Your task to perform on an android device: open app "Adobe Acrobat Reader" (install if not already installed) Image 0: 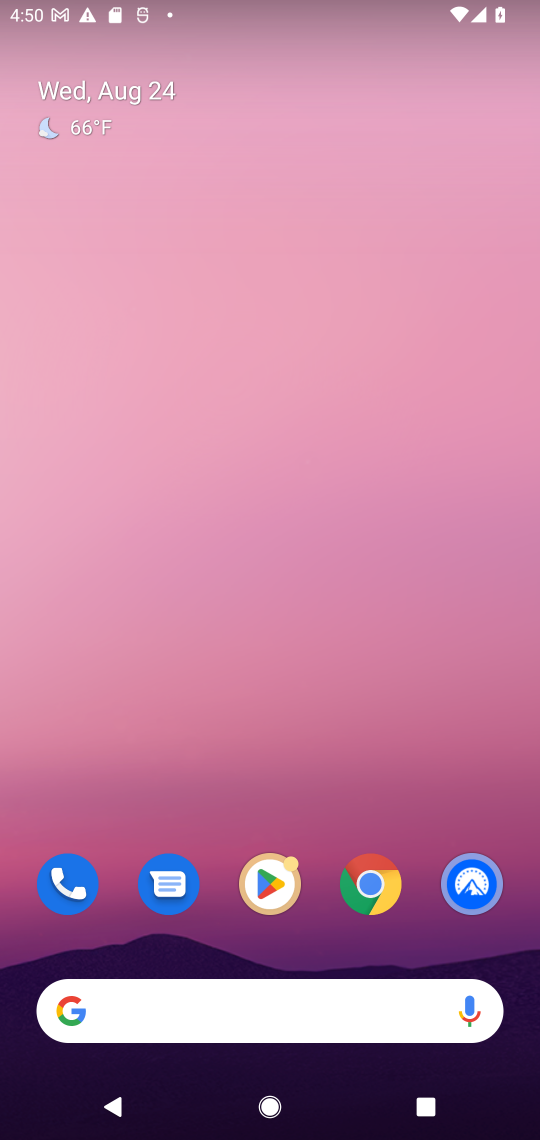
Step 0: click (273, 900)
Your task to perform on an android device: open app "Adobe Acrobat Reader" (install if not already installed) Image 1: 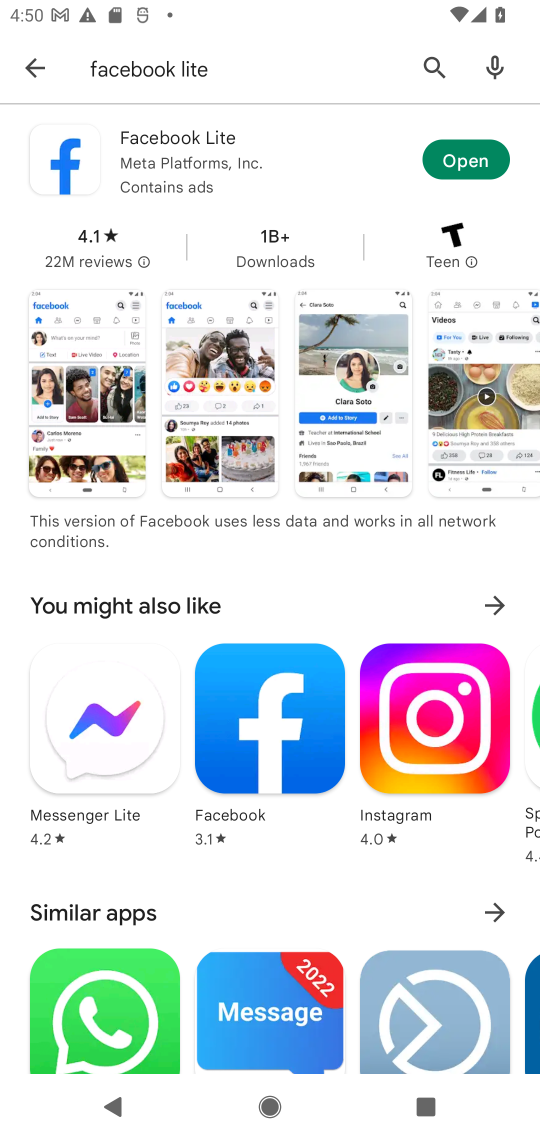
Step 1: click (22, 61)
Your task to perform on an android device: open app "Adobe Acrobat Reader" (install if not already installed) Image 2: 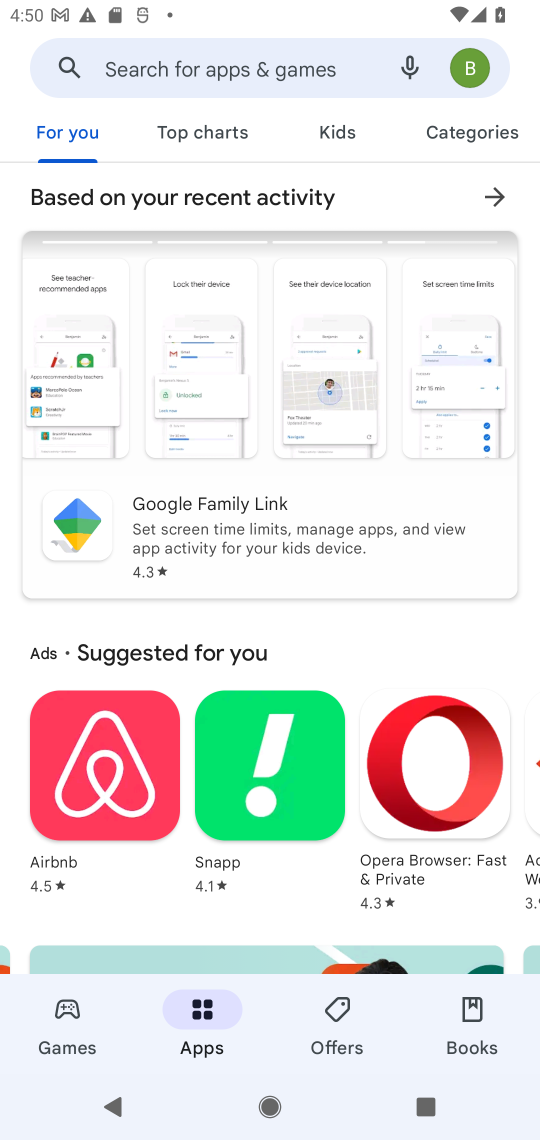
Step 2: click (181, 69)
Your task to perform on an android device: open app "Adobe Acrobat Reader" (install if not already installed) Image 3: 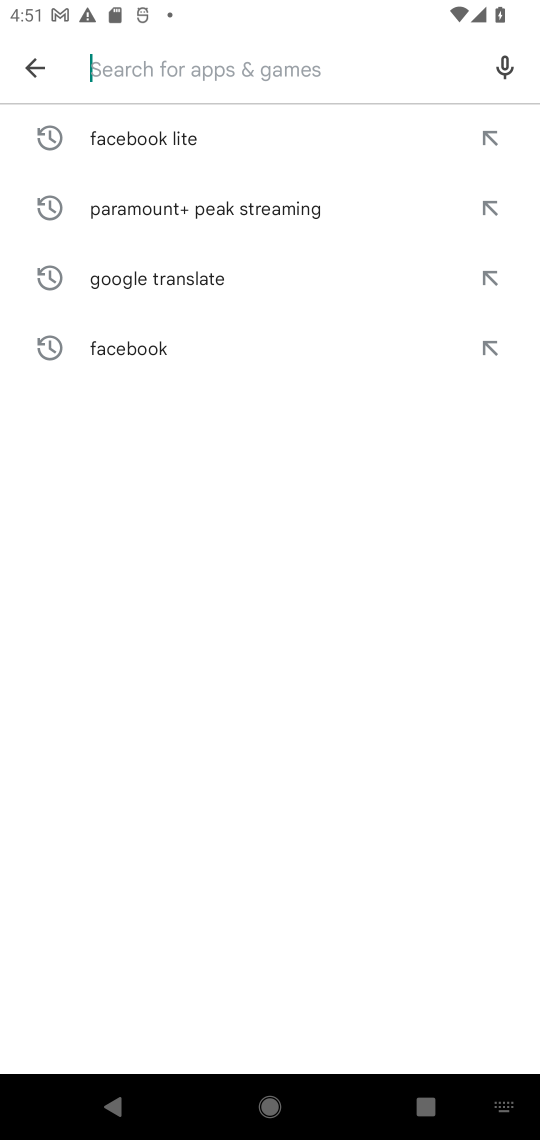
Step 3: type "Adobe Acrobat Reader"
Your task to perform on an android device: open app "Adobe Acrobat Reader" (install if not already installed) Image 4: 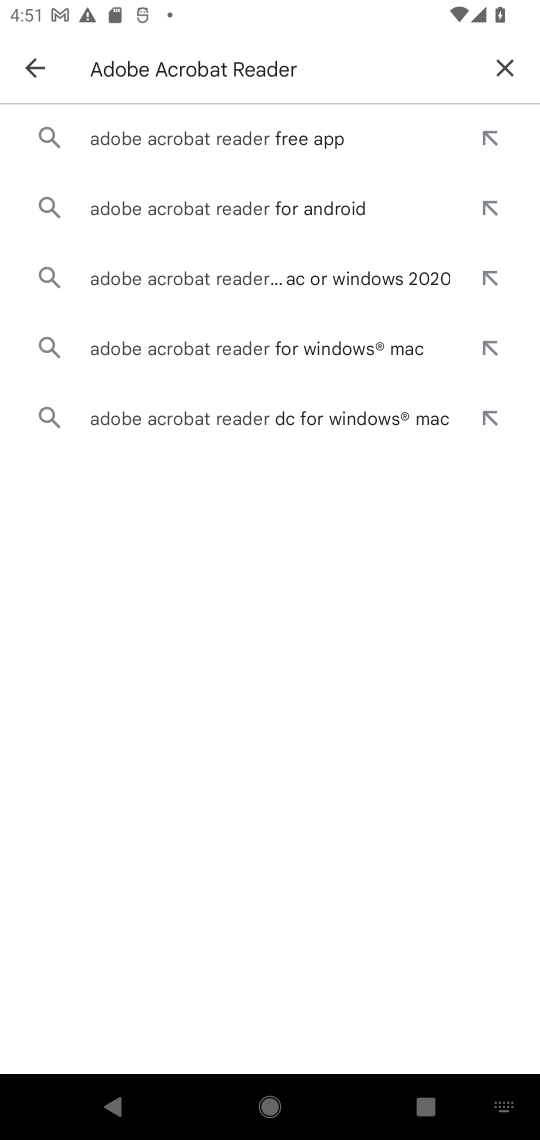
Step 4: click (223, 144)
Your task to perform on an android device: open app "Adobe Acrobat Reader" (install if not already installed) Image 5: 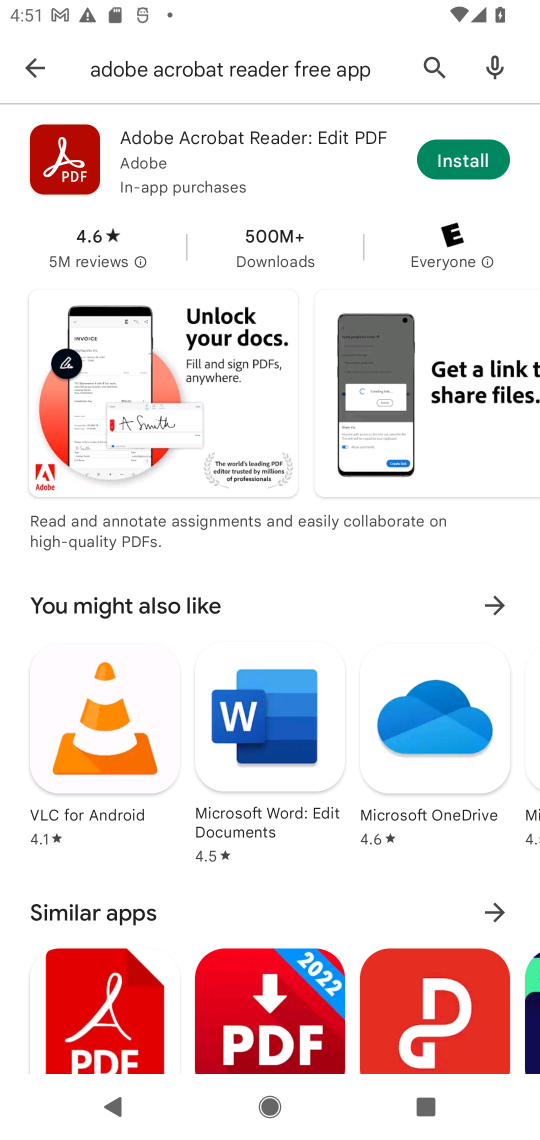
Step 5: click (462, 155)
Your task to perform on an android device: open app "Adobe Acrobat Reader" (install if not already installed) Image 6: 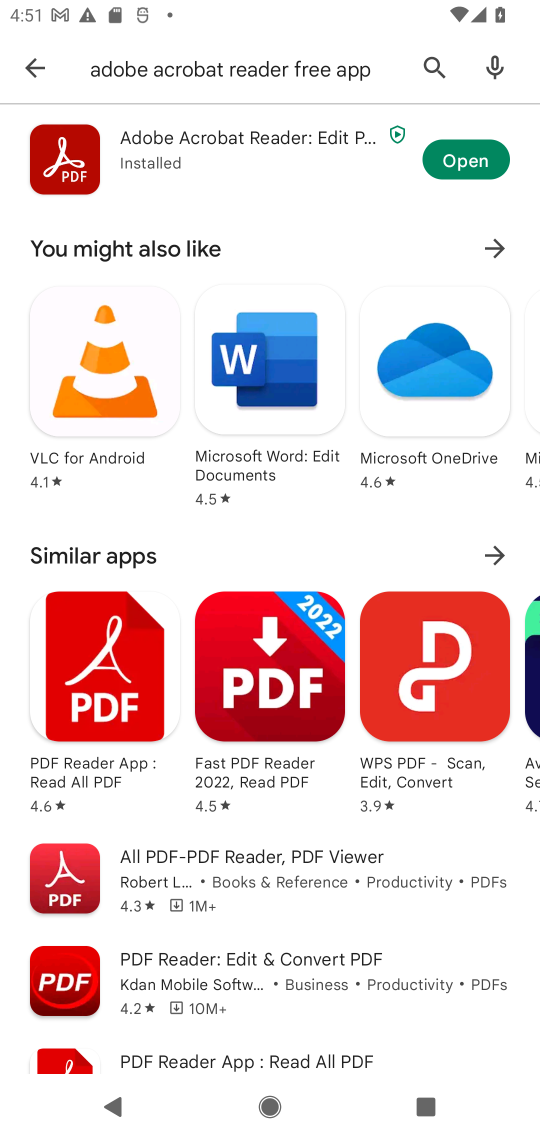
Step 6: click (465, 154)
Your task to perform on an android device: open app "Adobe Acrobat Reader" (install if not already installed) Image 7: 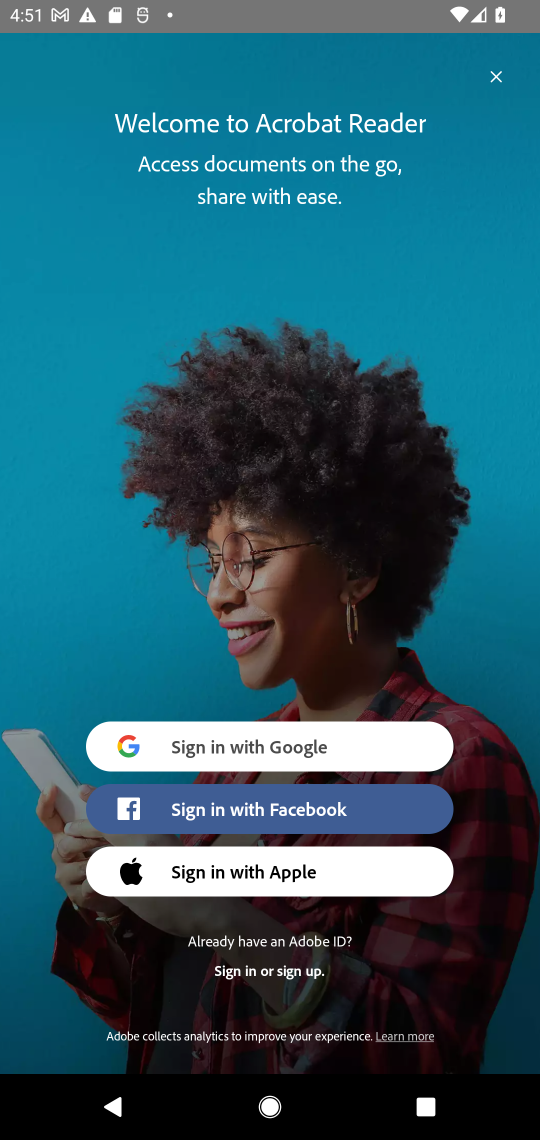
Step 7: task complete